Your task to perform on an android device: find snoozed emails in the gmail app Image 0: 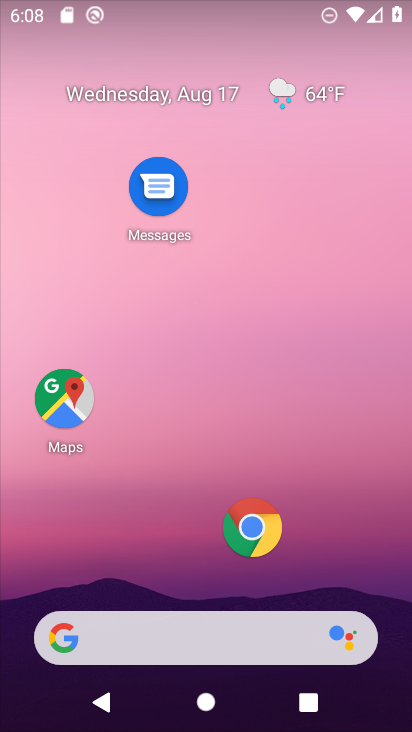
Step 0: drag from (103, 626) to (142, 218)
Your task to perform on an android device: find snoozed emails in the gmail app Image 1: 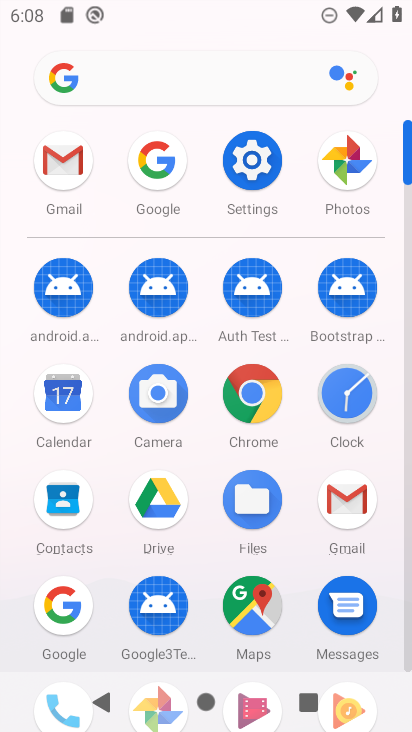
Step 1: click (78, 164)
Your task to perform on an android device: find snoozed emails in the gmail app Image 2: 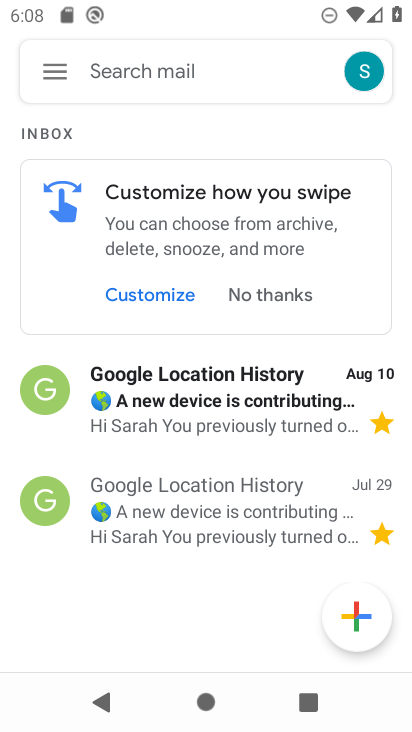
Step 2: click (58, 82)
Your task to perform on an android device: find snoozed emails in the gmail app Image 3: 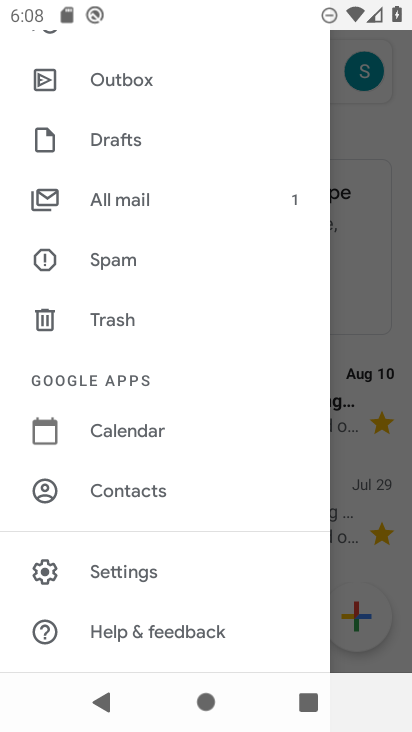
Step 3: drag from (128, 100) to (128, 616)
Your task to perform on an android device: find snoozed emails in the gmail app Image 4: 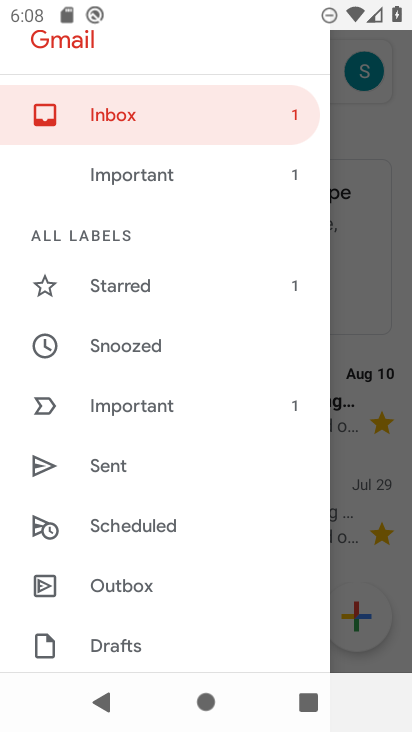
Step 4: click (107, 337)
Your task to perform on an android device: find snoozed emails in the gmail app Image 5: 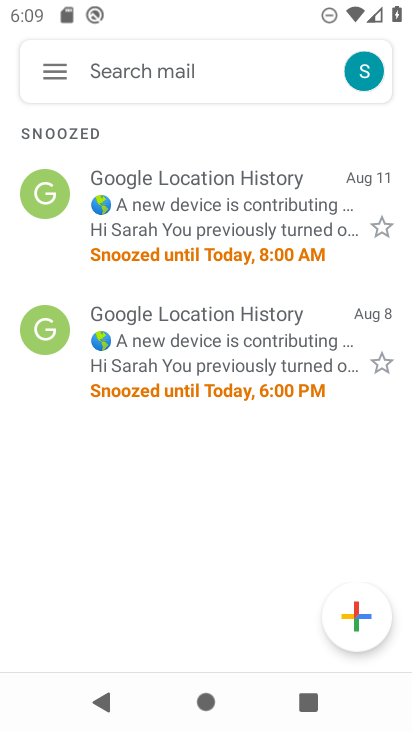
Step 5: task complete